Your task to perform on an android device: turn on bluetooth scan Image 0: 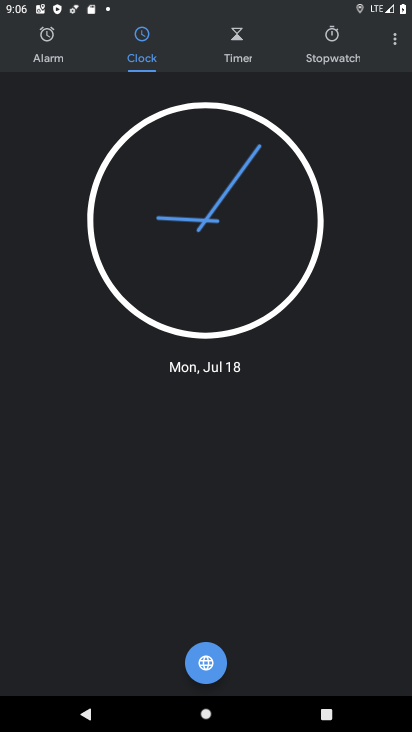
Step 0: drag from (228, 122) to (255, 32)
Your task to perform on an android device: turn on bluetooth scan Image 1: 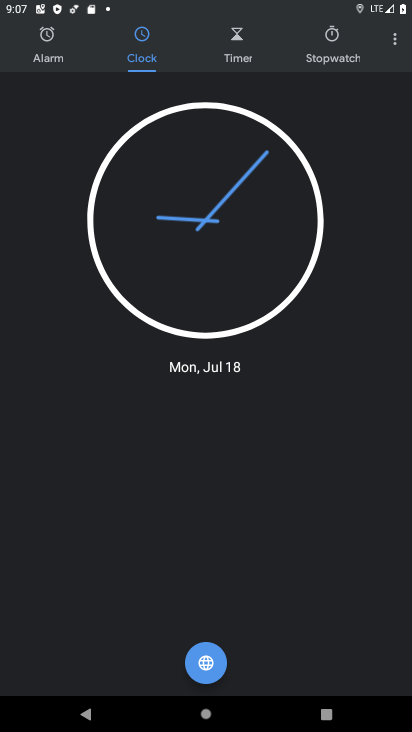
Step 1: press home button
Your task to perform on an android device: turn on bluetooth scan Image 2: 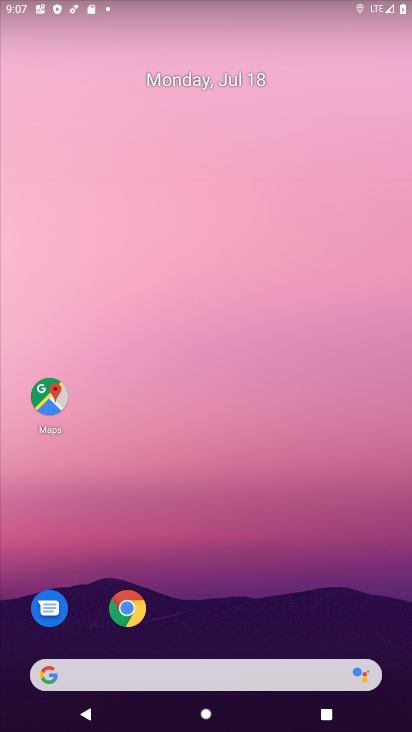
Step 2: drag from (15, 695) to (201, 124)
Your task to perform on an android device: turn on bluetooth scan Image 3: 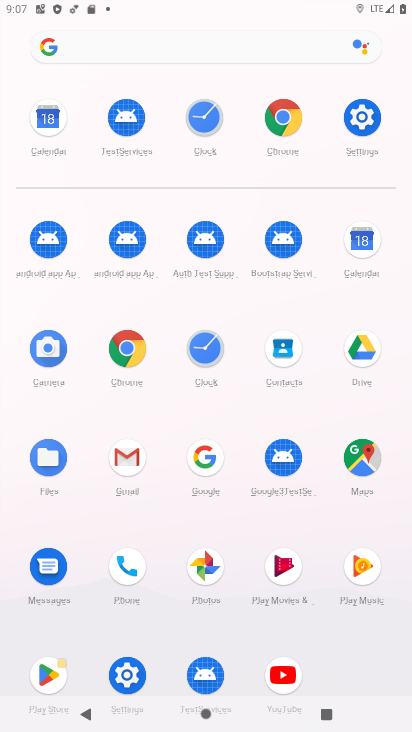
Step 3: click (121, 681)
Your task to perform on an android device: turn on bluetooth scan Image 4: 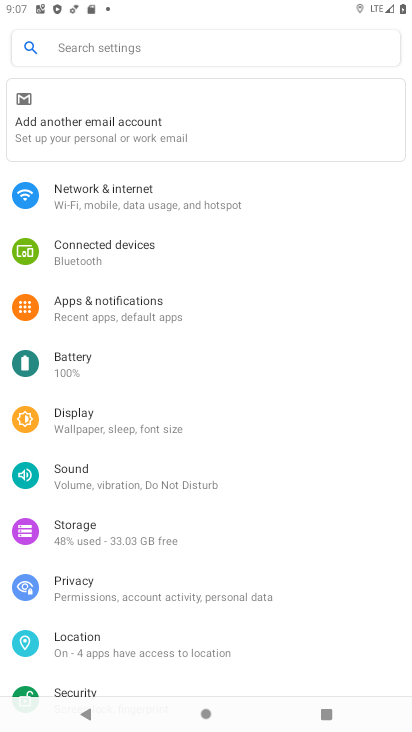
Step 4: click (129, 261)
Your task to perform on an android device: turn on bluetooth scan Image 5: 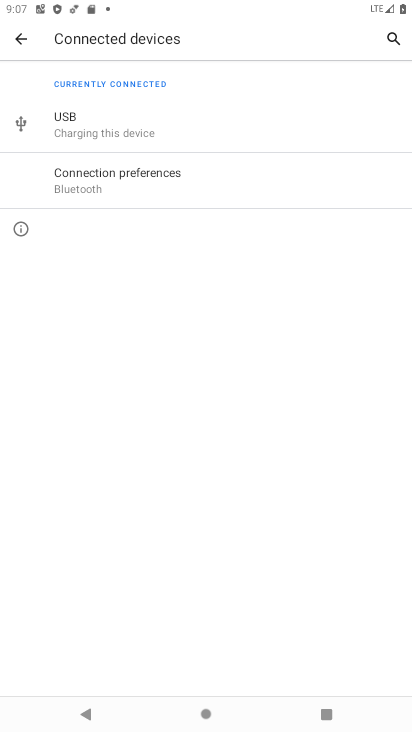
Step 5: click (140, 169)
Your task to perform on an android device: turn on bluetooth scan Image 6: 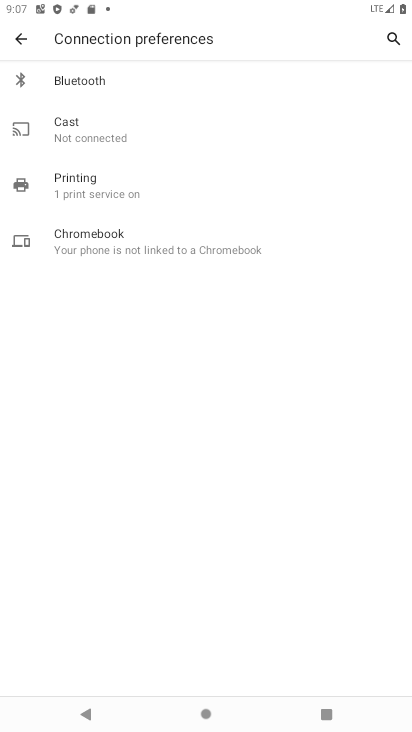
Step 6: click (119, 75)
Your task to perform on an android device: turn on bluetooth scan Image 7: 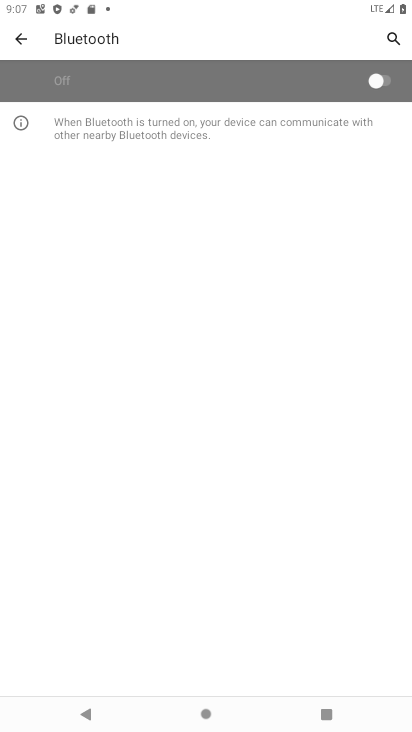
Step 7: click (370, 85)
Your task to perform on an android device: turn on bluetooth scan Image 8: 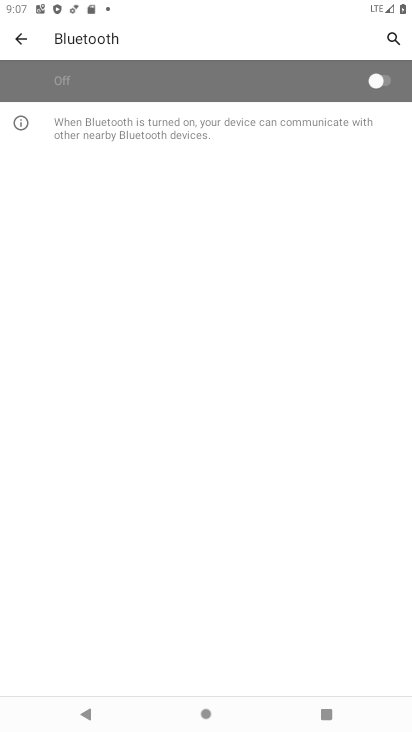
Step 8: task complete